Your task to perform on an android device: Open privacy settings Image 0: 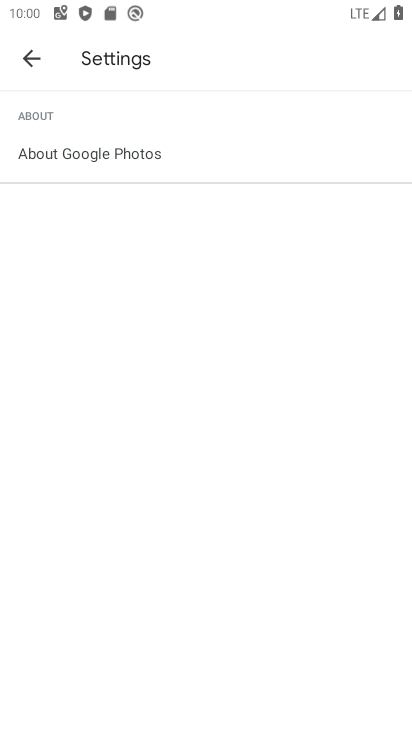
Step 0: press home button
Your task to perform on an android device: Open privacy settings Image 1: 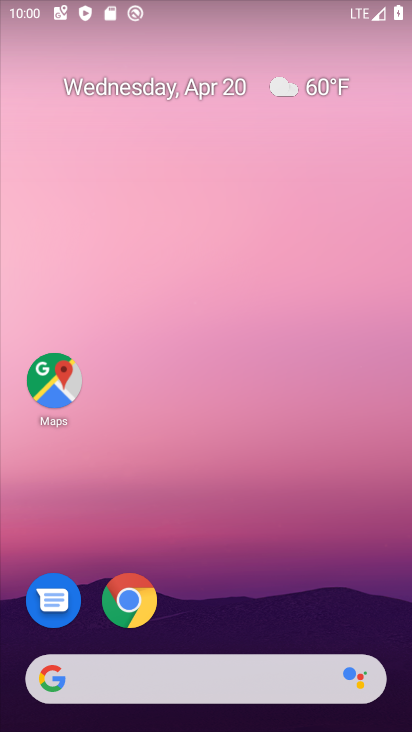
Step 1: drag from (223, 608) to (300, 3)
Your task to perform on an android device: Open privacy settings Image 2: 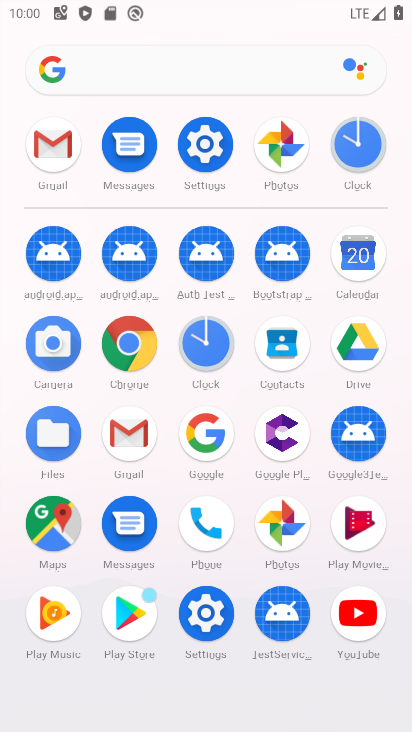
Step 2: click (197, 161)
Your task to perform on an android device: Open privacy settings Image 3: 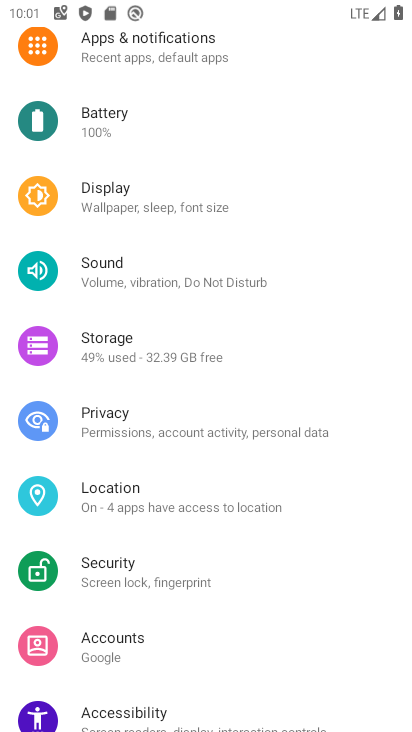
Step 3: click (201, 446)
Your task to perform on an android device: Open privacy settings Image 4: 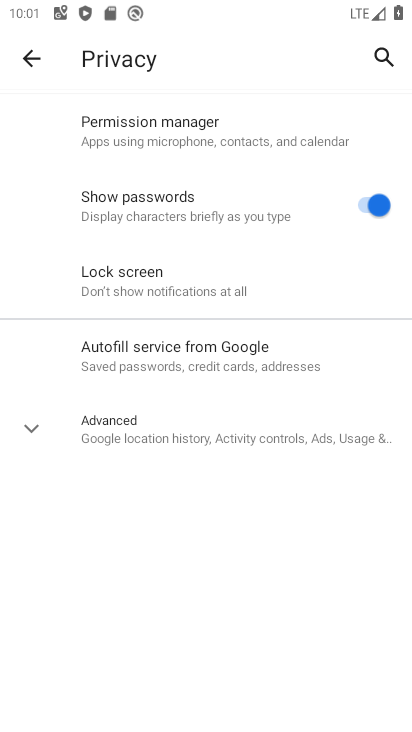
Step 4: task complete